Your task to perform on an android device: turn off priority inbox in the gmail app Image 0: 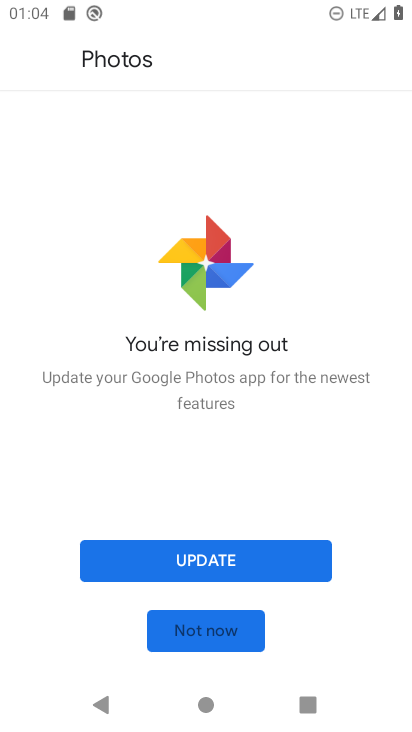
Step 0: press home button
Your task to perform on an android device: turn off priority inbox in the gmail app Image 1: 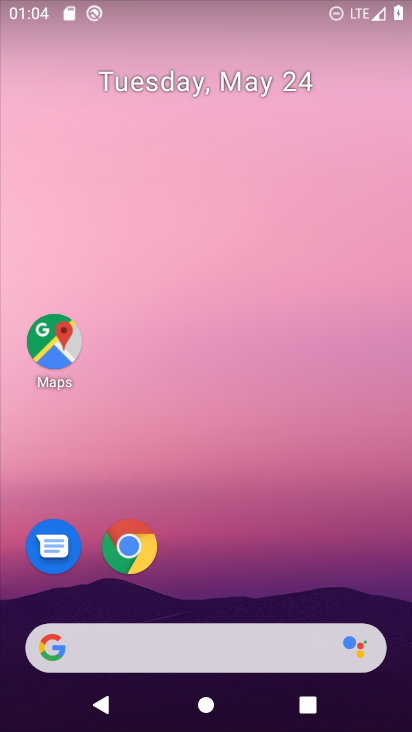
Step 1: drag from (308, 654) to (358, 3)
Your task to perform on an android device: turn off priority inbox in the gmail app Image 2: 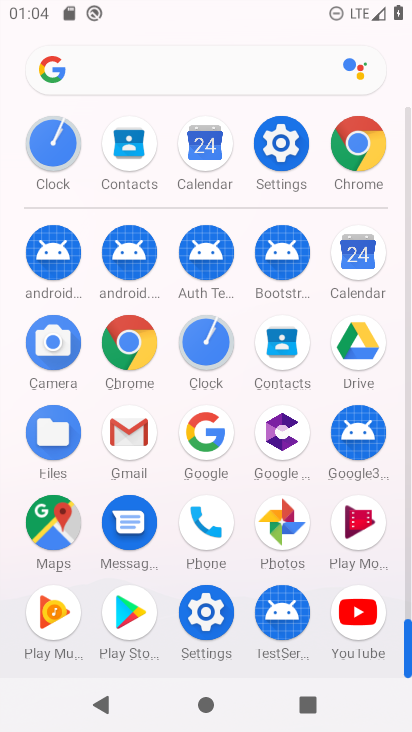
Step 2: click (137, 436)
Your task to perform on an android device: turn off priority inbox in the gmail app Image 3: 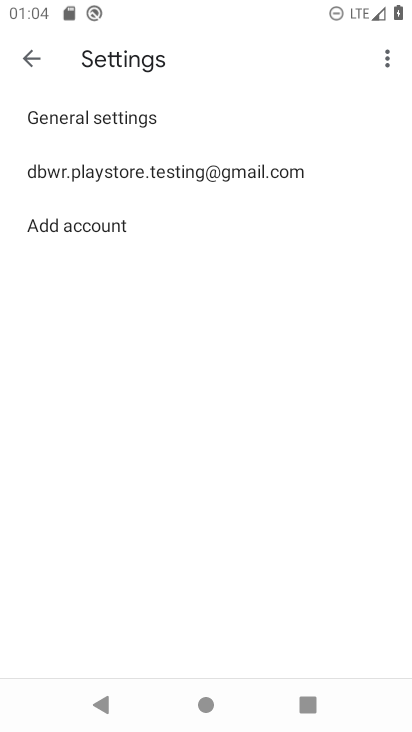
Step 3: press back button
Your task to perform on an android device: turn off priority inbox in the gmail app Image 4: 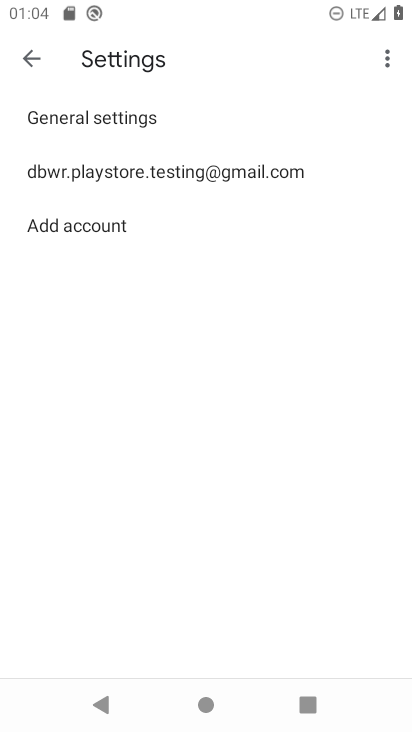
Step 4: click (182, 167)
Your task to perform on an android device: turn off priority inbox in the gmail app Image 5: 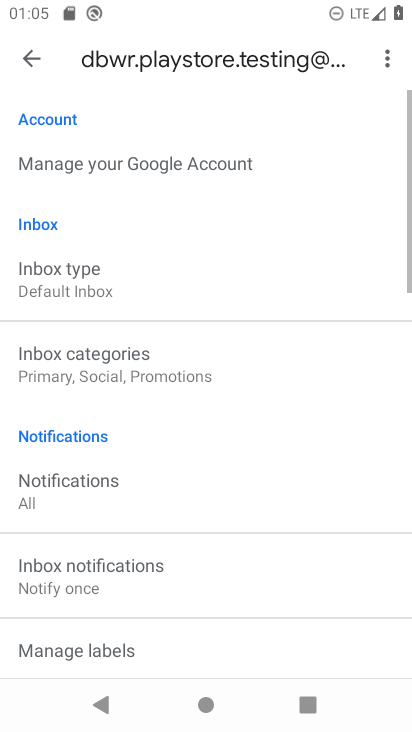
Step 5: click (99, 283)
Your task to perform on an android device: turn off priority inbox in the gmail app Image 6: 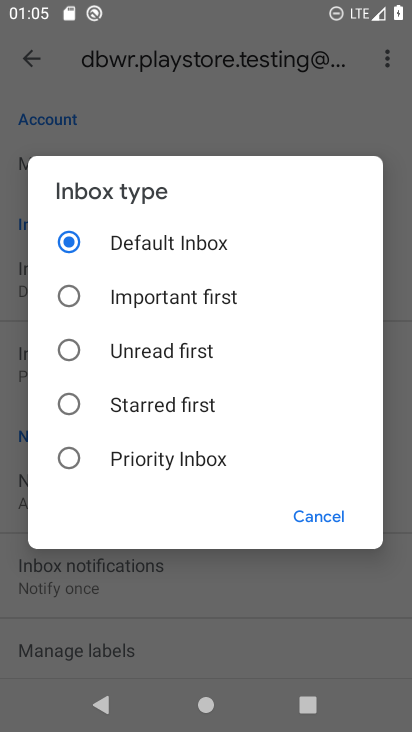
Step 6: task complete